Your task to perform on an android device: Search for vegetarian restaurants on Maps Image 0: 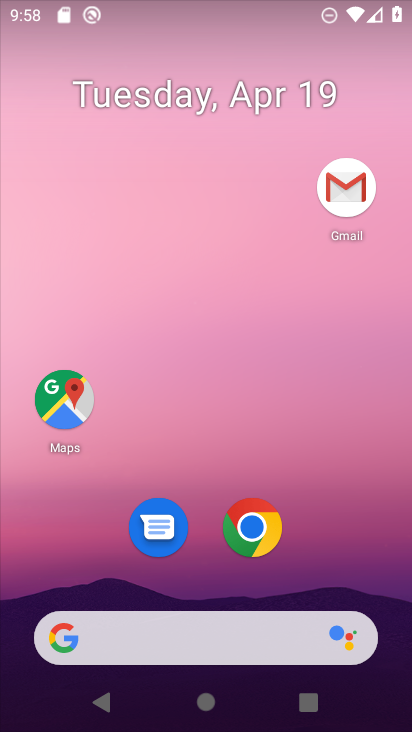
Step 0: drag from (342, 450) to (298, 73)
Your task to perform on an android device: Search for vegetarian restaurants on Maps Image 1: 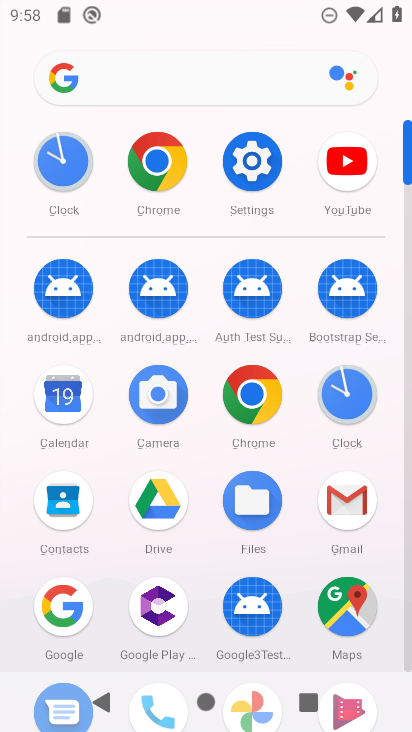
Step 1: click (342, 607)
Your task to perform on an android device: Search for vegetarian restaurants on Maps Image 2: 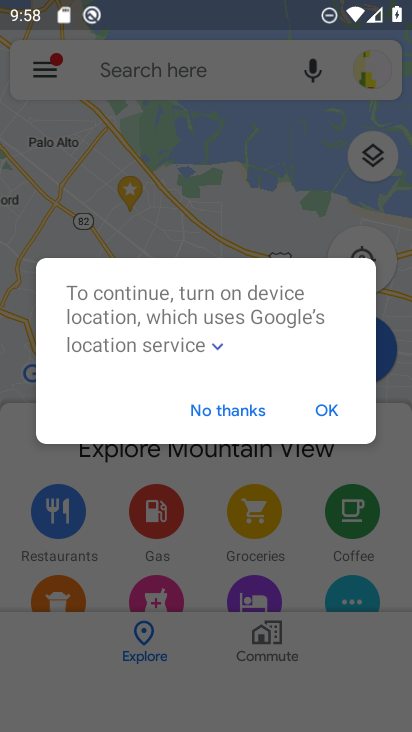
Step 2: press home button
Your task to perform on an android device: Search for vegetarian restaurants on Maps Image 3: 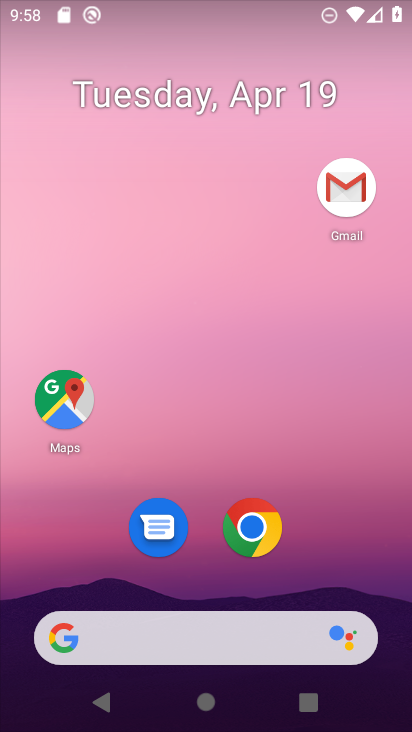
Step 3: drag from (347, 528) to (294, 92)
Your task to perform on an android device: Search for vegetarian restaurants on Maps Image 4: 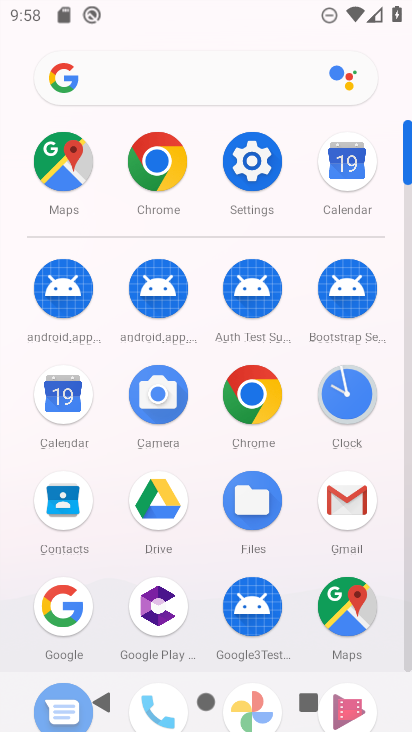
Step 4: drag from (296, 573) to (290, 326)
Your task to perform on an android device: Search for vegetarian restaurants on Maps Image 5: 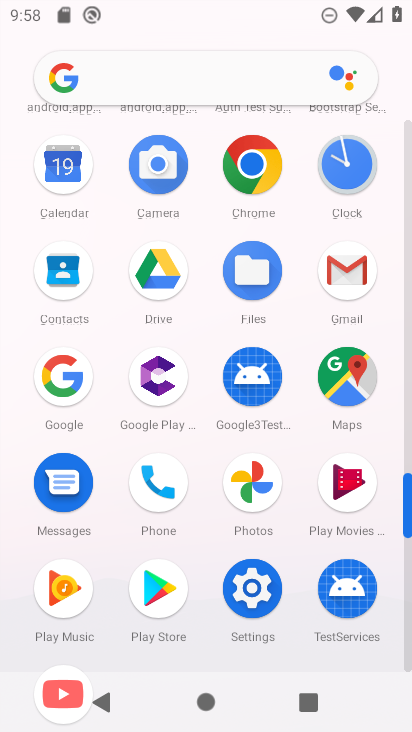
Step 5: click (352, 374)
Your task to perform on an android device: Search for vegetarian restaurants on Maps Image 6: 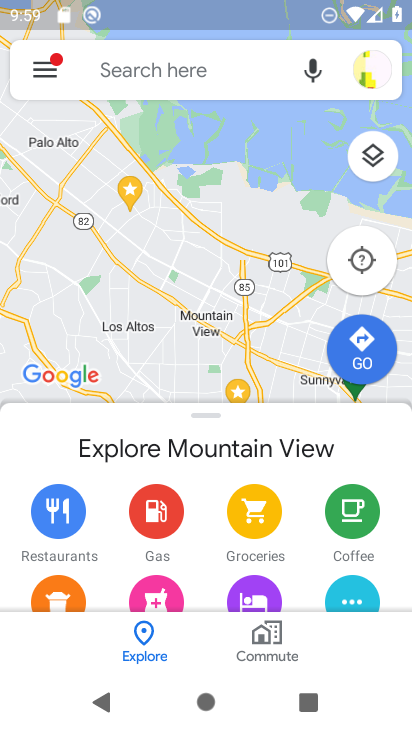
Step 6: click (161, 72)
Your task to perform on an android device: Search for vegetarian restaurants on Maps Image 7: 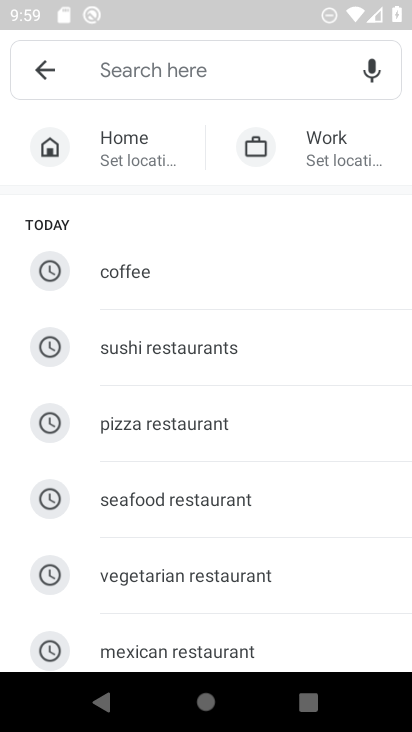
Step 7: click (249, 565)
Your task to perform on an android device: Search for vegetarian restaurants on Maps Image 8: 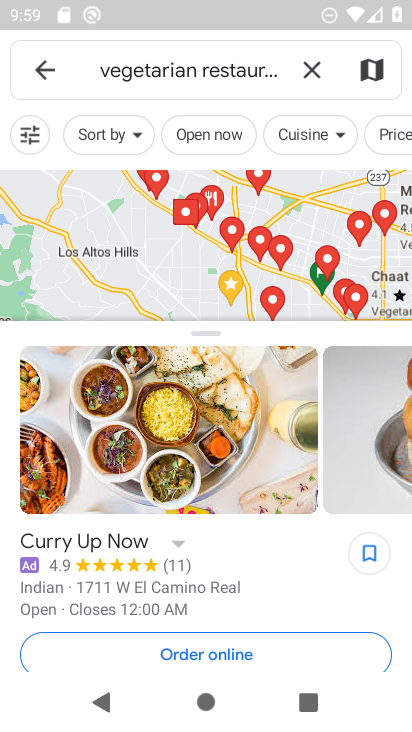
Step 8: task complete